Your task to perform on an android device: Open Wikipedia Image 0: 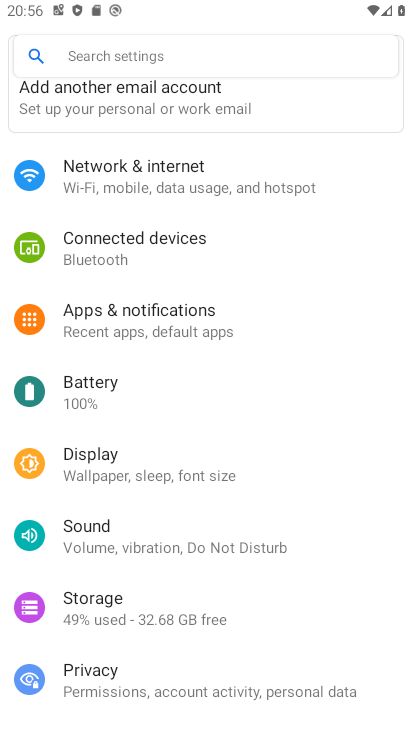
Step 0: press home button
Your task to perform on an android device: Open Wikipedia Image 1: 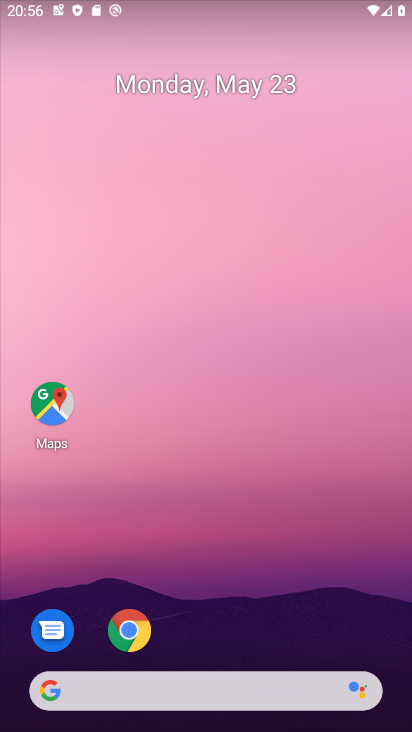
Step 1: drag from (255, 654) to (275, 51)
Your task to perform on an android device: Open Wikipedia Image 2: 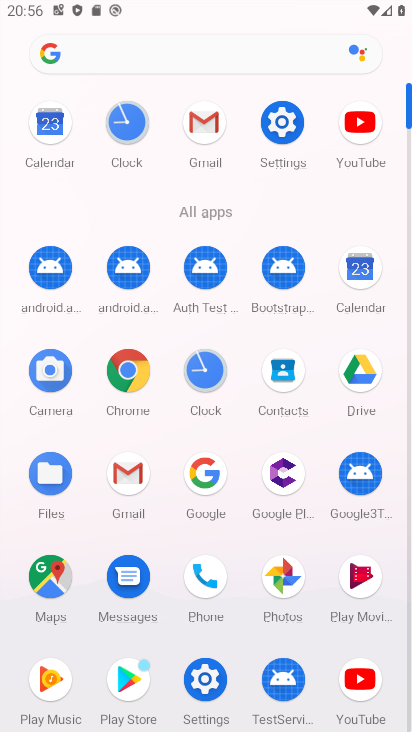
Step 2: click (124, 377)
Your task to perform on an android device: Open Wikipedia Image 3: 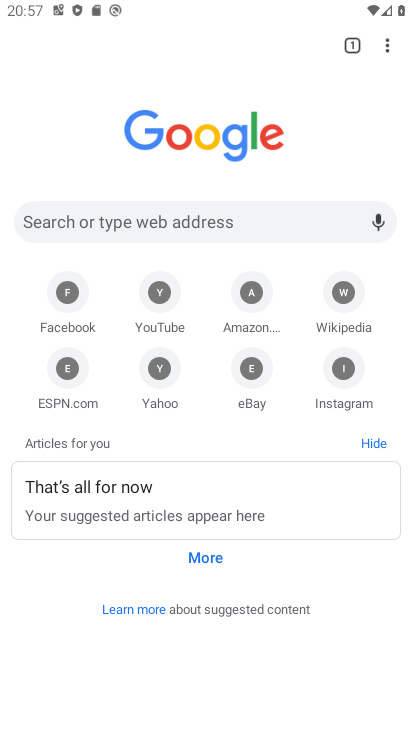
Step 3: click (344, 298)
Your task to perform on an android device: Open Wikipedia Image 4: 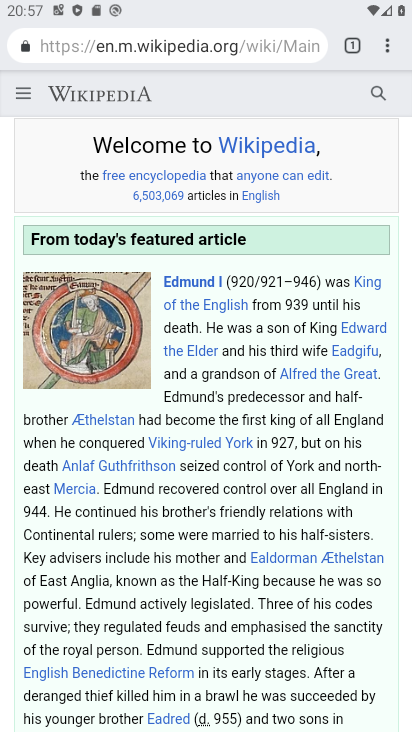
Step 4: task complete